Your task to perform on an android device: turn pop-ups on in chrome Image 0: 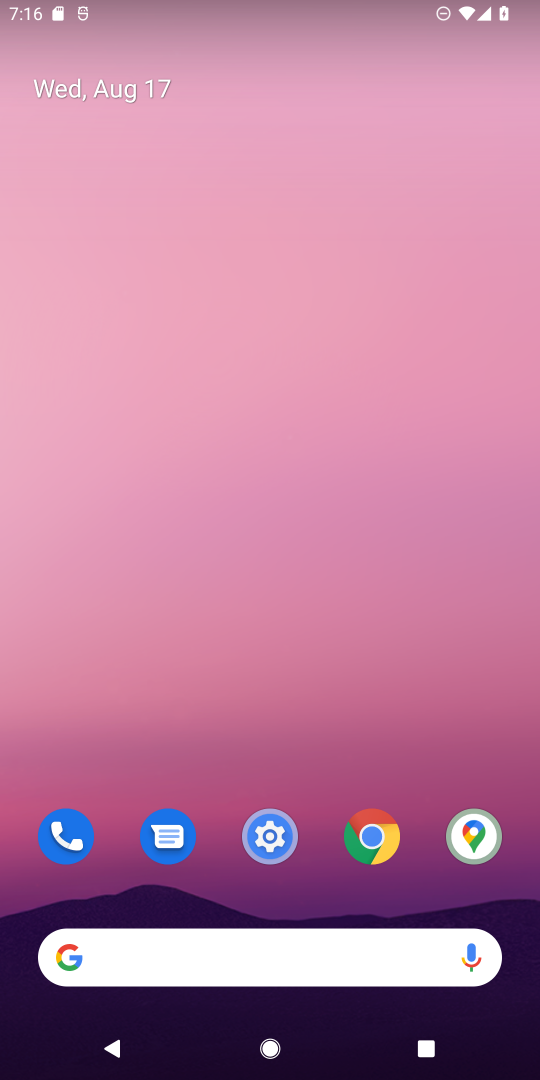
Step 0: drag from (220, 830) to (244, 272)
Your task to perform on an android device: turn pop-ups on in chrome Image 1: 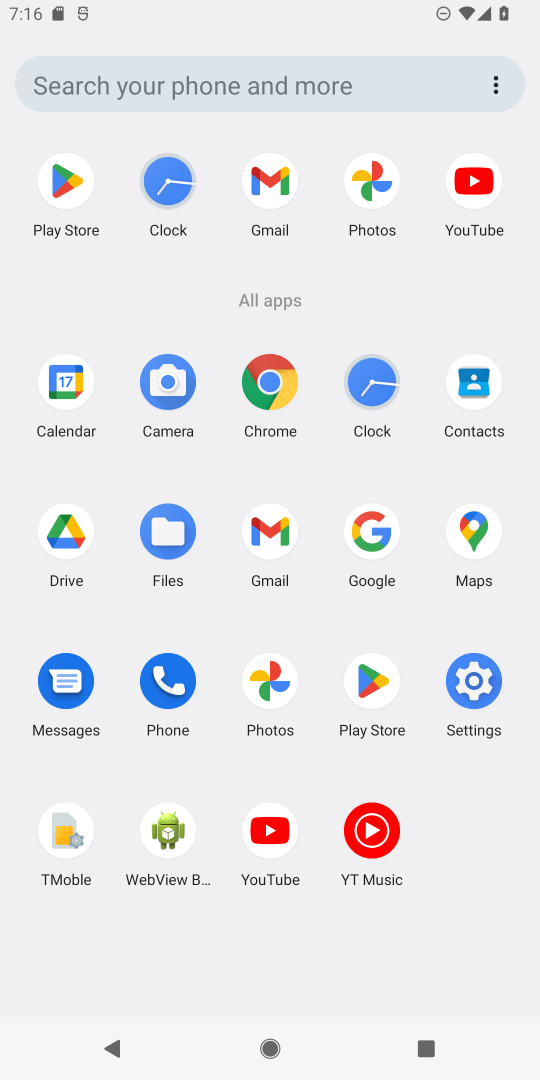
Step 1: click (280, 379)
Your task to perform on an android device: turn pop-ups on in chrome Image 2: 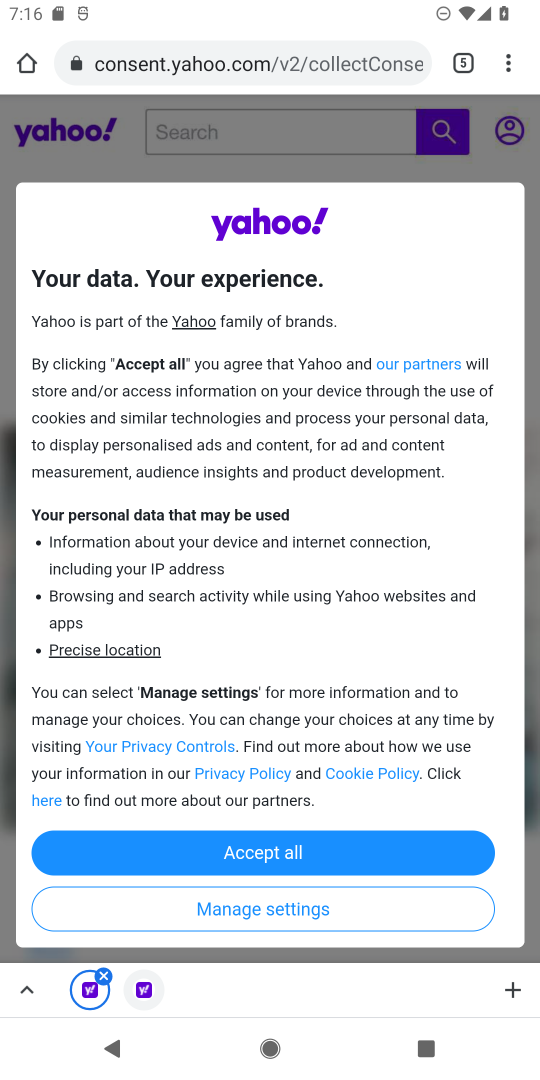
Step 2: click (503, 44)
Your task to perform on an android device: turn pop-ups on in chrome Image 3: 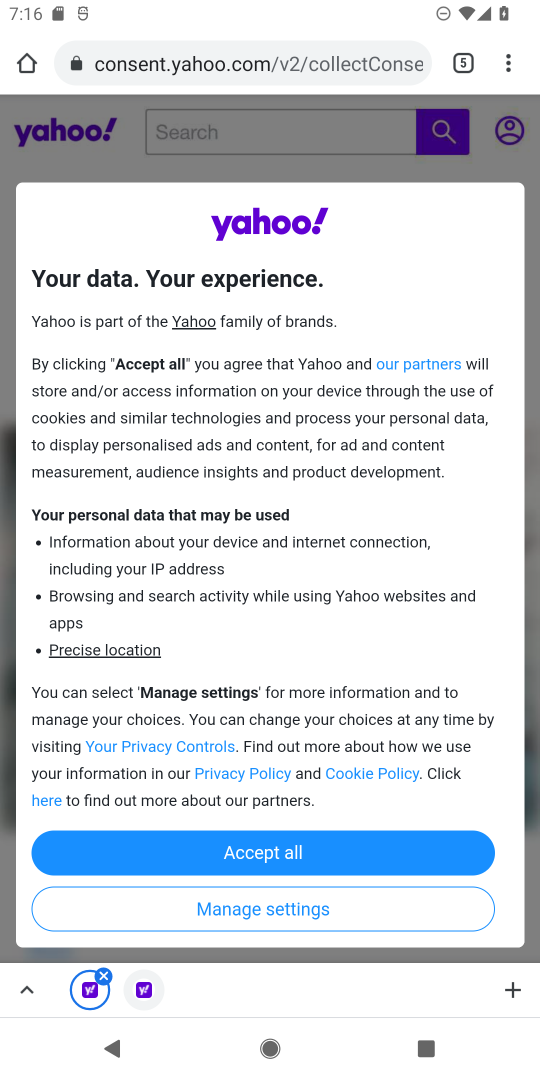
Step 3: click (503, 61)
Your task to perform on an android device: turn pop-ups on in chrome Image 4: 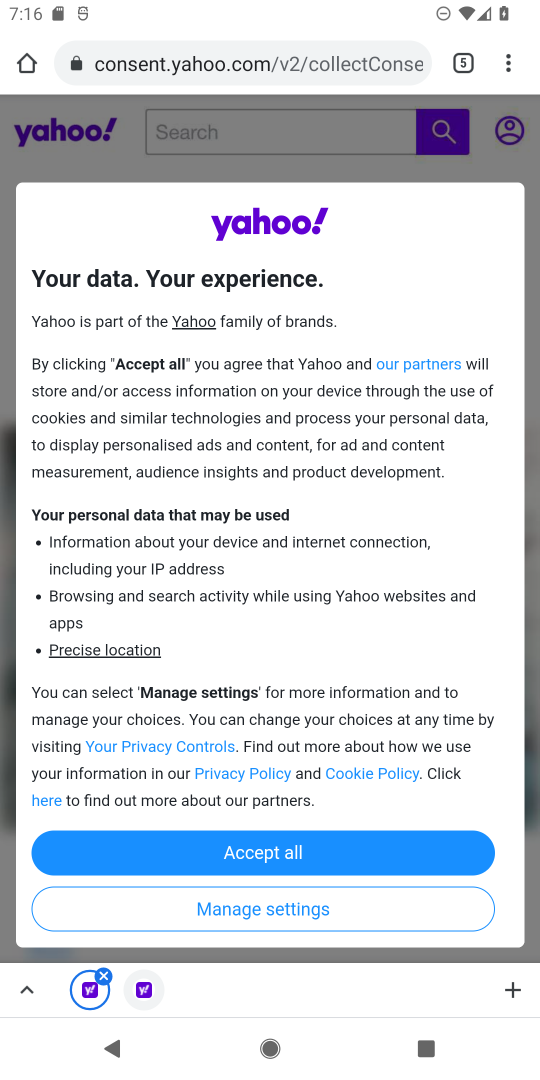
Step 4: click (503, 61)
Your task to perform on an android device: turn pop-ups on in chrome Image 5: 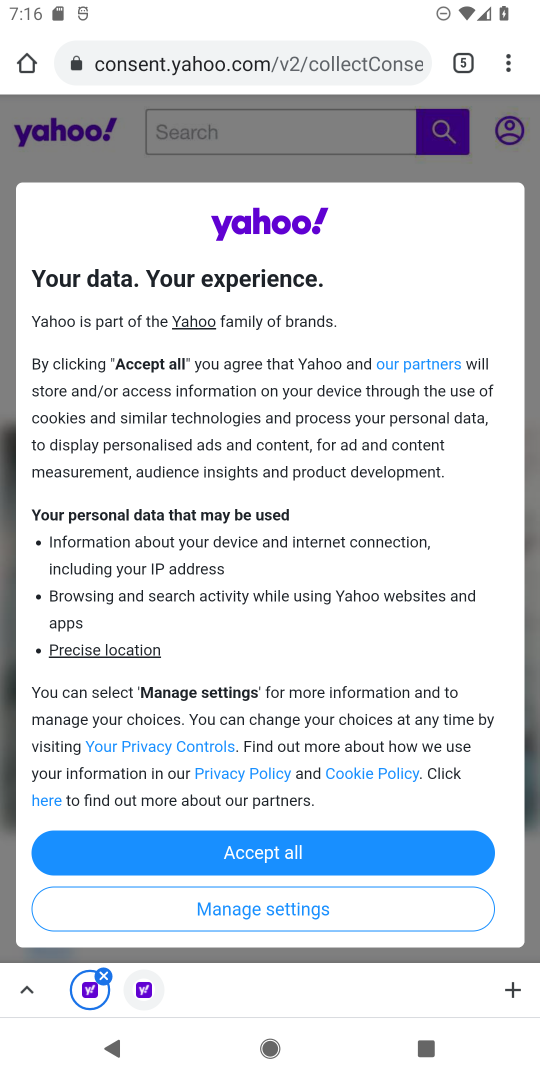
Step 5: click (478, 62)
Your task to perform on an android device: turn pop-ups on in chrome Image 6: 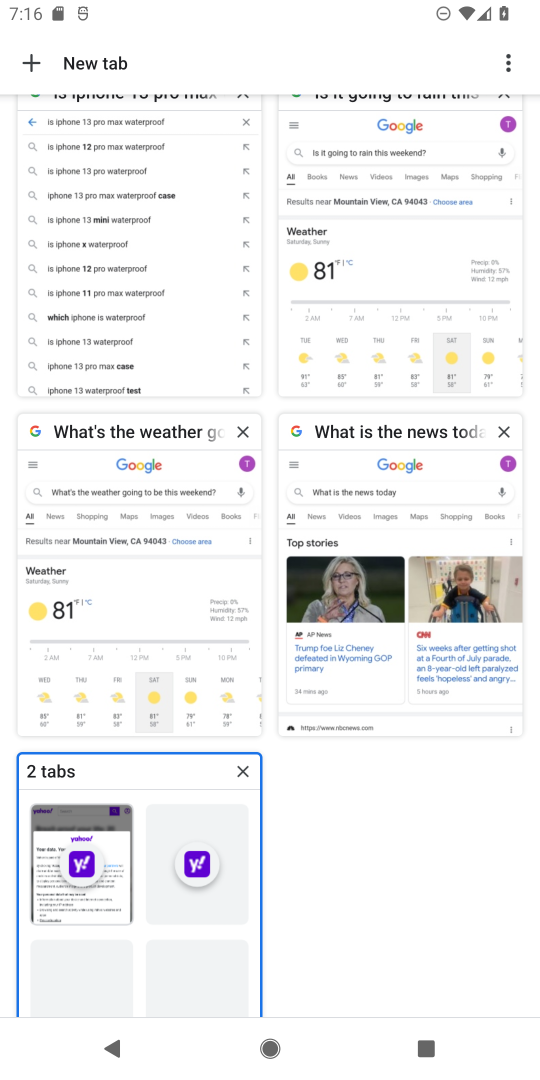
Step 6: click (46, 55)
Your task to perform on an android device: turn pop-ups on in chrome Image 7: 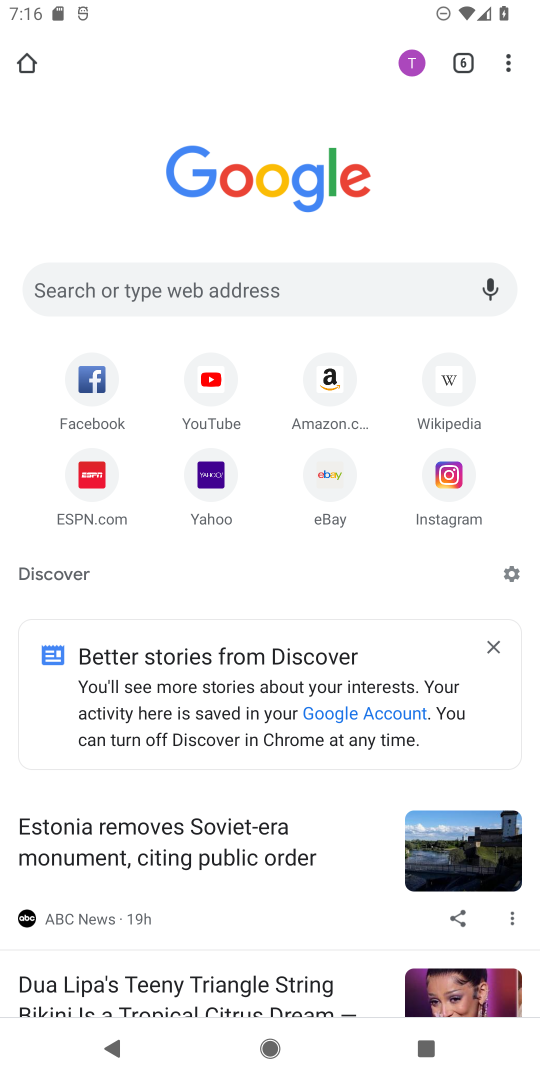
Step 7: click (510, 59)
Your task to perform on an android device: turn pop-ups on in chrome Image 8: 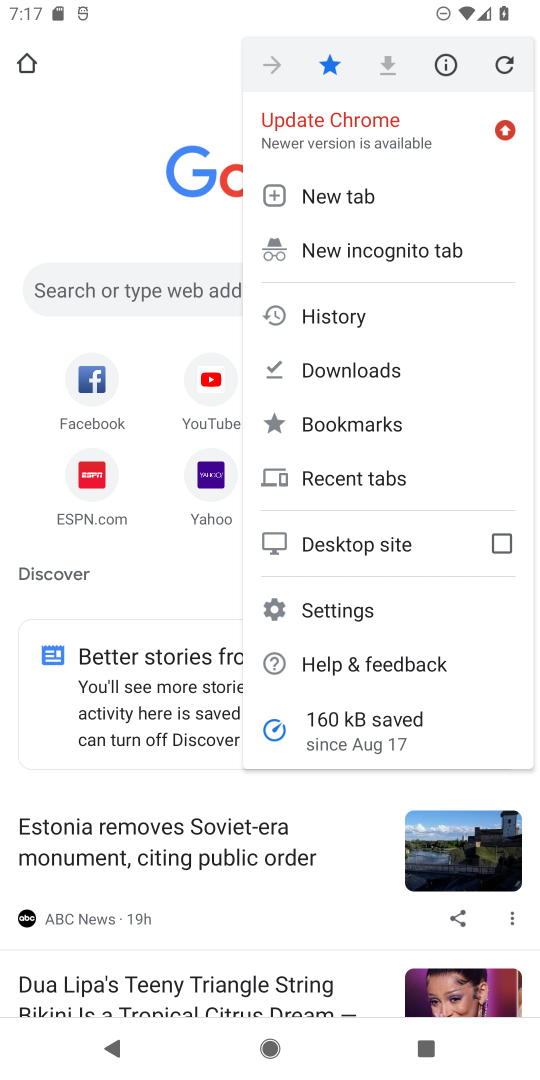
Step 8: click (366, 612)
Your task to perform on an android device: turn pop-ups on in chrome Image 9: 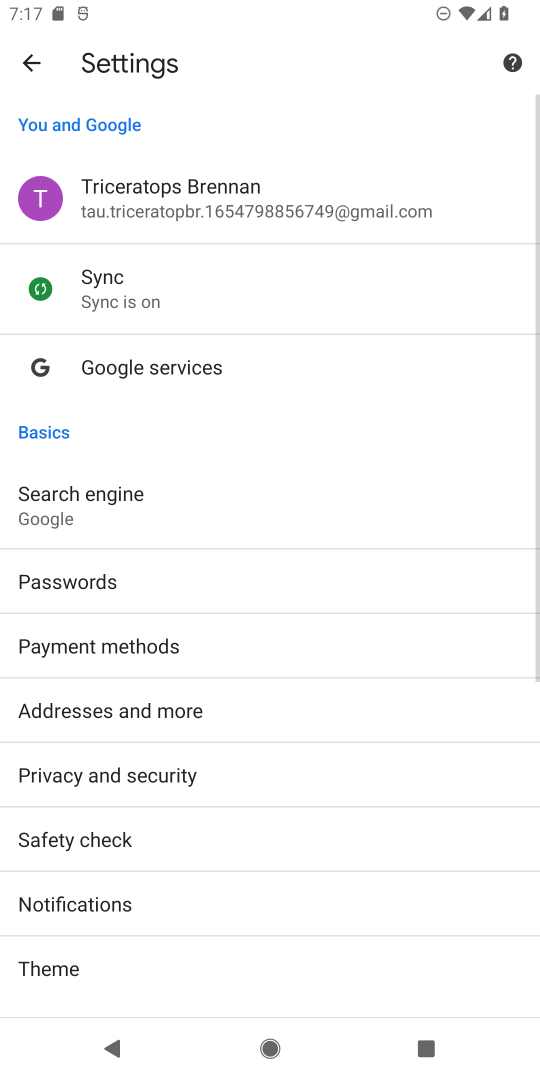
Step 9: drag from (185, 877) to (337, 60)
Your task to perform on an android device: turn pop-ups on in chrome Image 10: 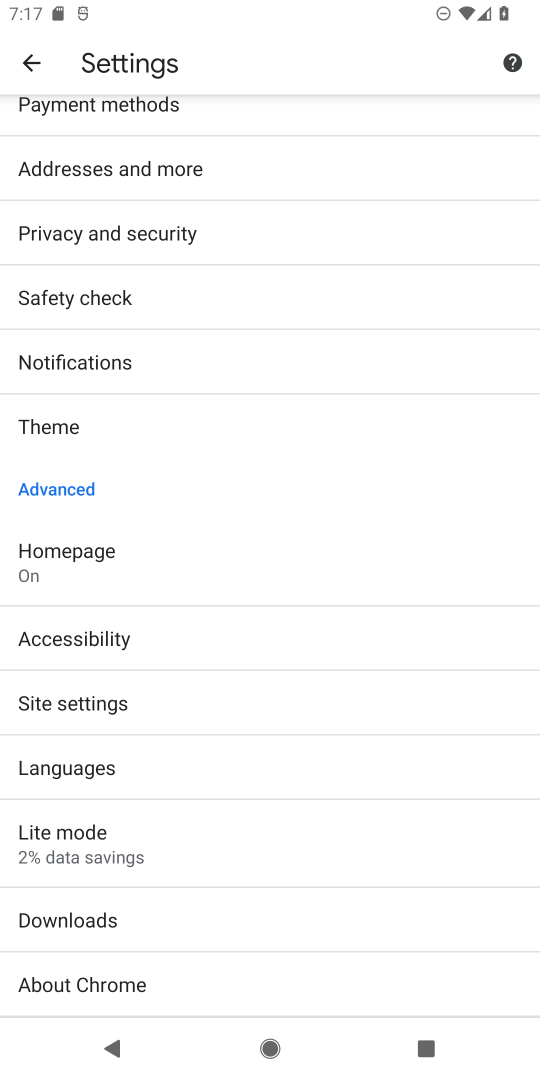
Step 10: click (147, 689)
Your task to perform on an android device: turn pop-ups on in chrome Image 11: 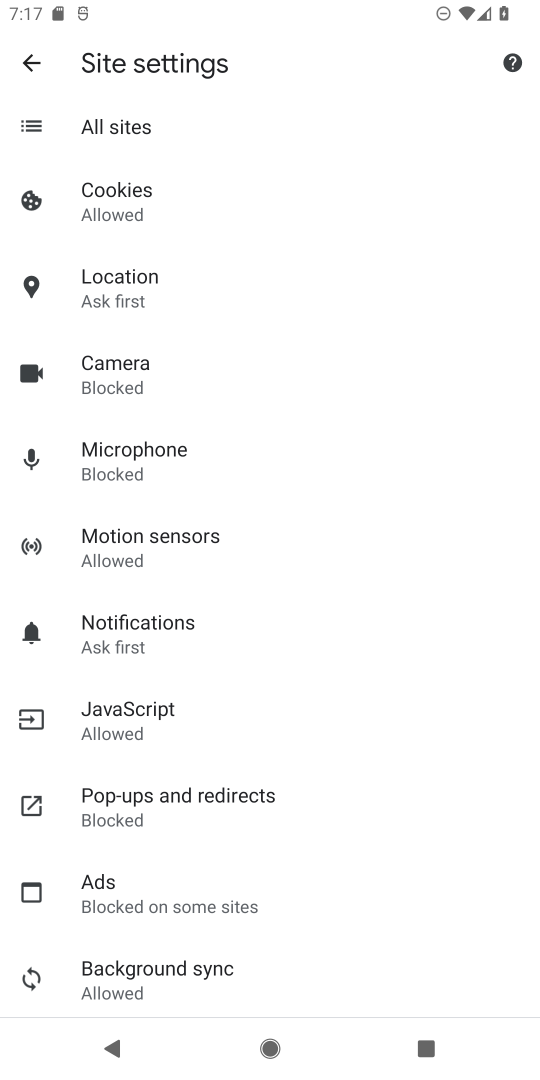
Step 11: click (195, 820)
Your task to perform on an android device: turn pop-ups on in chrome Image 12: 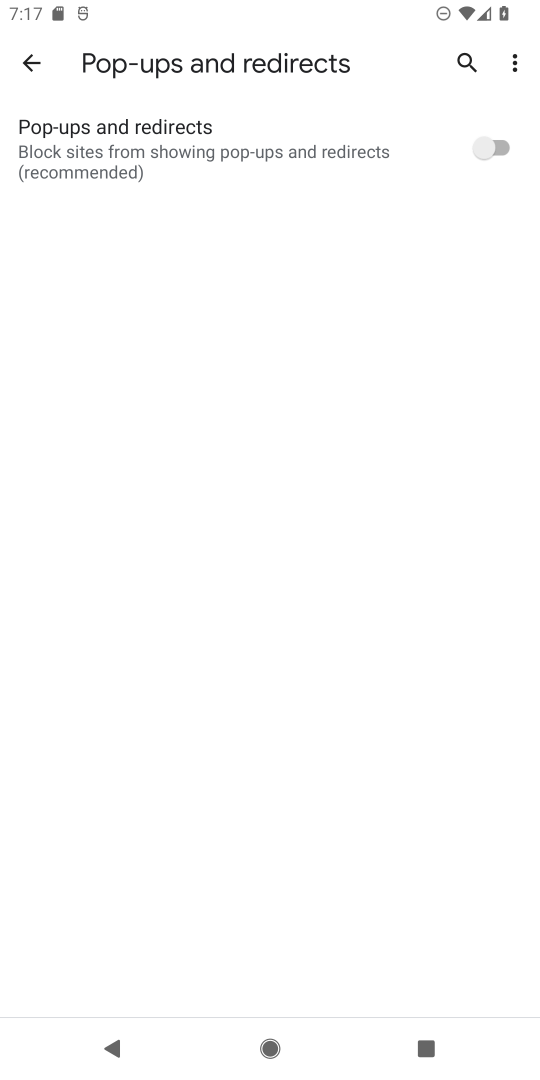
Step 12: click (491, 148)
Your task to perform on an android device: turn pop-ups on in chrome Image 13: 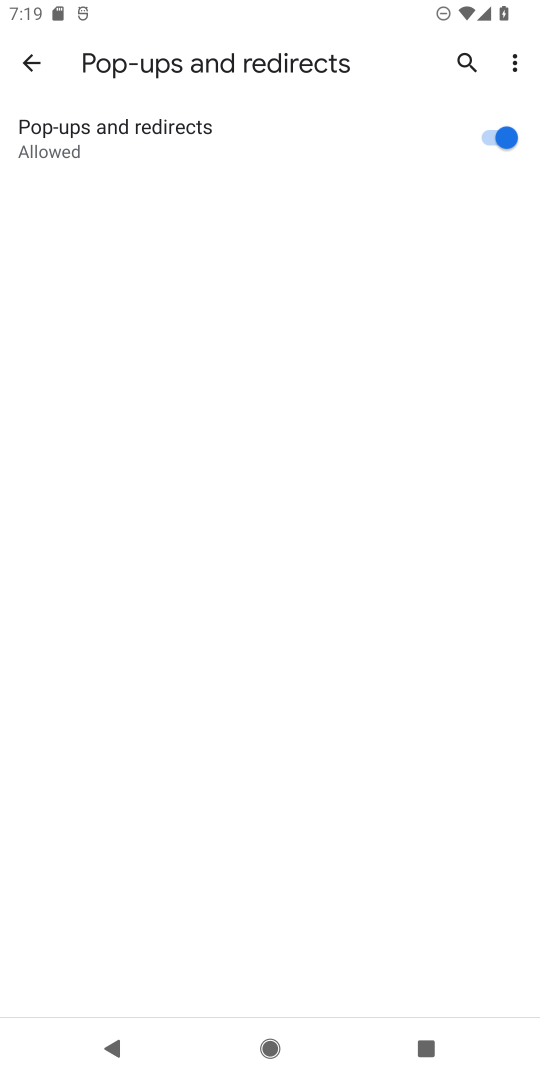
Step 13: task complete